Your task to perform on an android device: Is it going to rain today? Image 0: 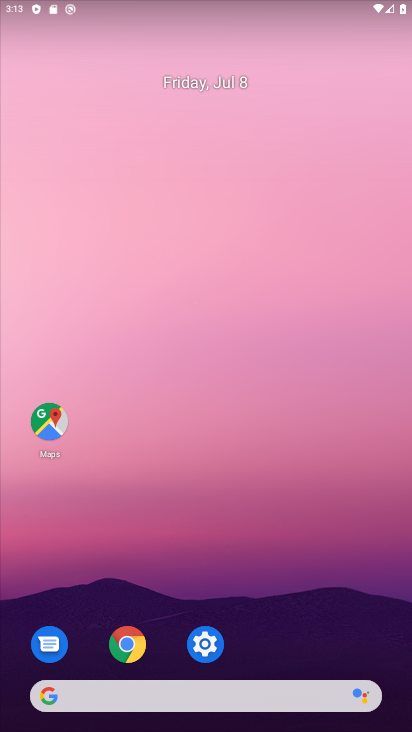
Step 0: click (144, 712)
Your task to perform on an android device: Is it going to rain today? Image 1: 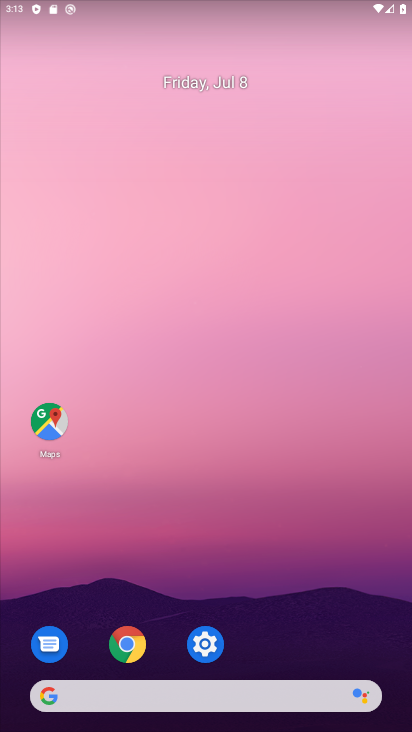
Step 1: click (98, 696)
Your task to perform on an android device: Is it going to rain today? Image 2: 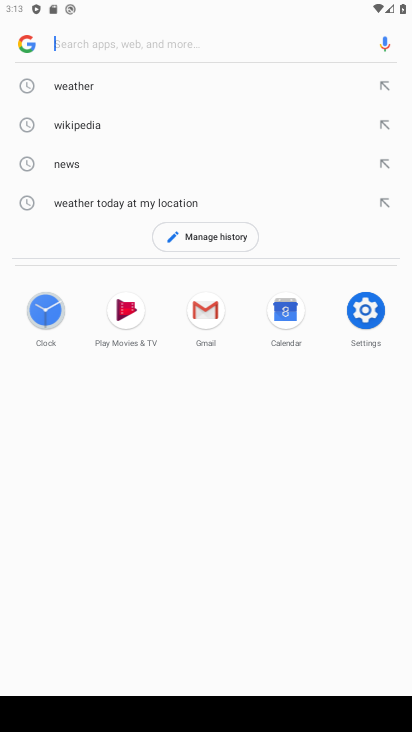
Step 2: type "Is it going to rain today?"
Your task to perform on an android device: Is it going to rain today? Image 3: 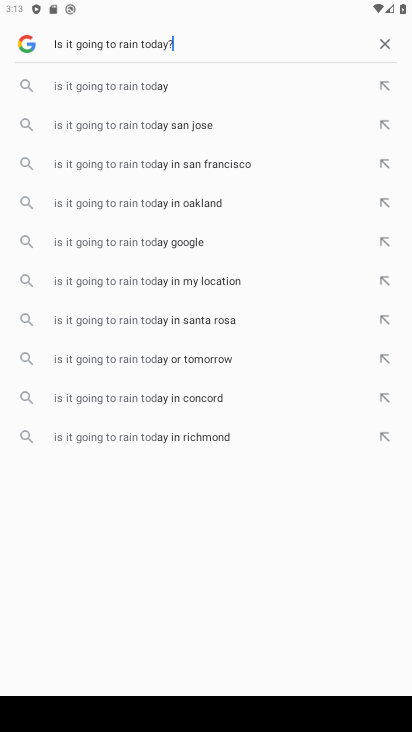
Step 3: type ""
Your task to perform on an android device: Is it going to rain today? Image 4: 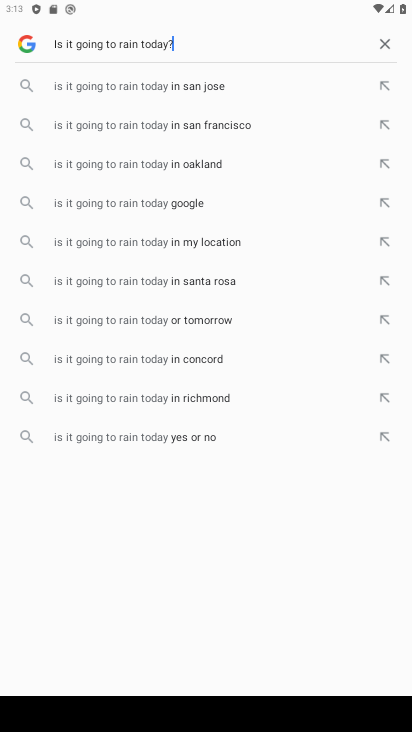
Step 4: task complete